Your task to perform on an android device: Clear the shopping cart on costco. Search for "usb-a to usb-b" on costco, select the first entry, and add it to the cart. Image 0: 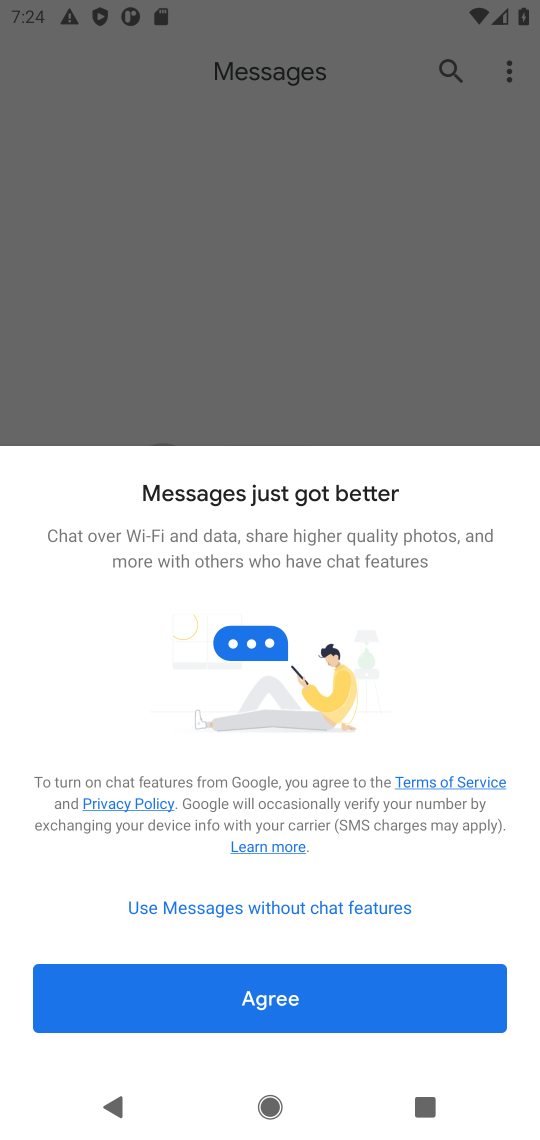
Step 0: press home button
Your task to perform on an android device: Clear the shopping cart on costco. Search for "usb-a to usb-b" on costco, select the first entry, and add it to the cart. Image 1: 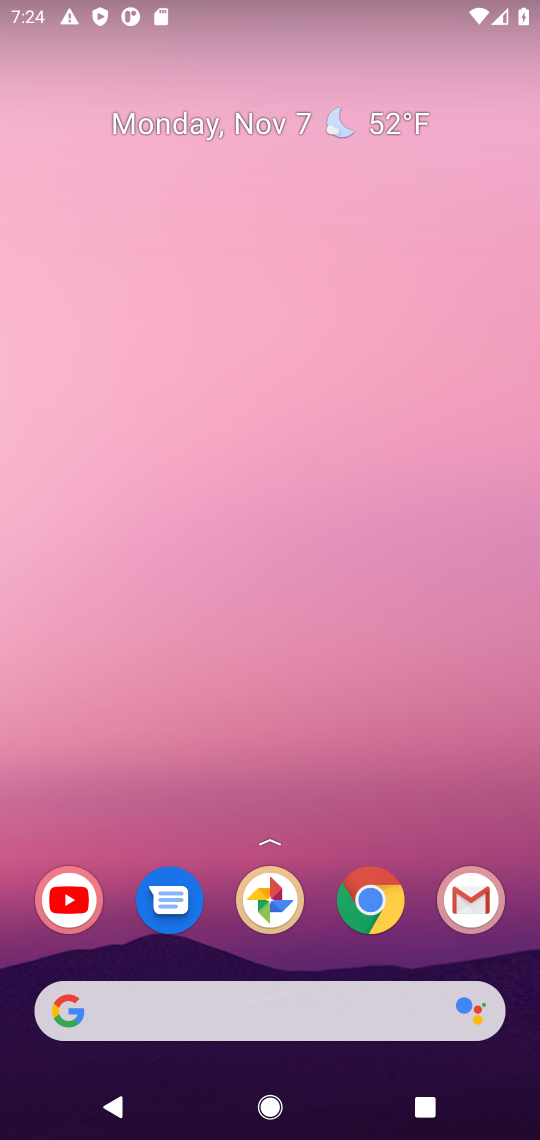
Step 1: press home button
Your task to perform on an android device: Clear the shopping cart on costco. Search for "usb-a to usb-b" on costco, select the first entry, and add it to the cart. Image 2: 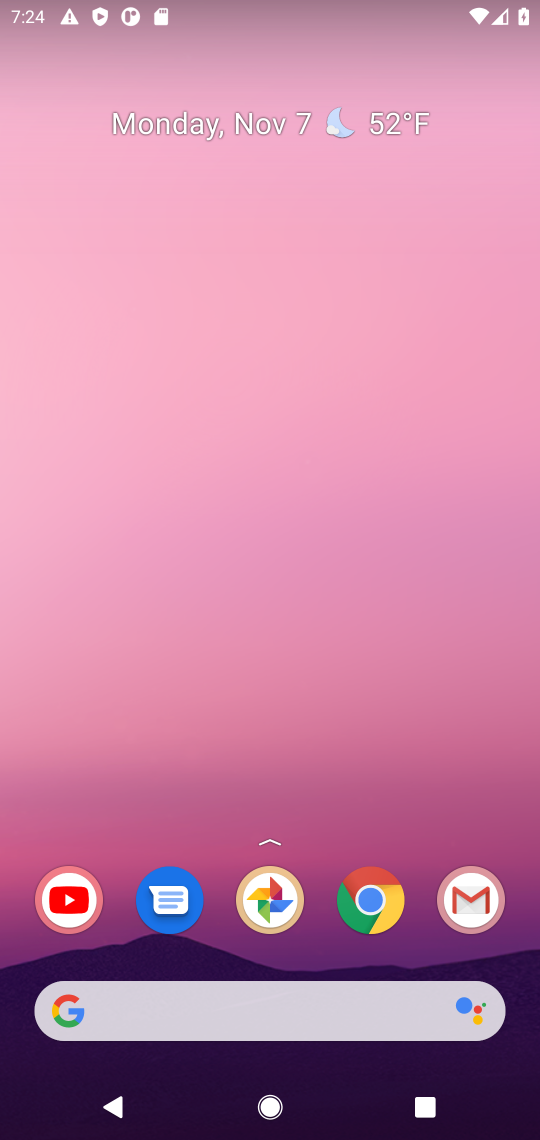
Step 2: drag from (295, 936) to (342, 211)
Your task to perform on an android device: Clear the shopping cart on costco. Search for "usb-a to usb-b" on costco, select the first entry, and add it to the cart. Image 3: 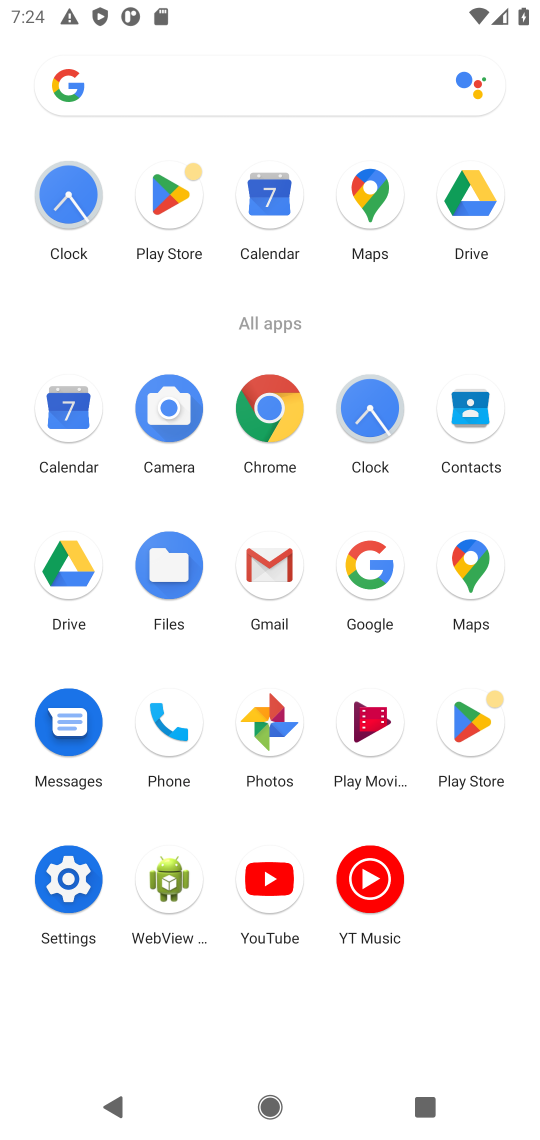
Step 3: click (264, 408)
Your task to perform on an android device: Clear the shopping cart on costco. Search for "usb-a to usb-b" on costco, select the first entry, and add it to the cart. Image 4: 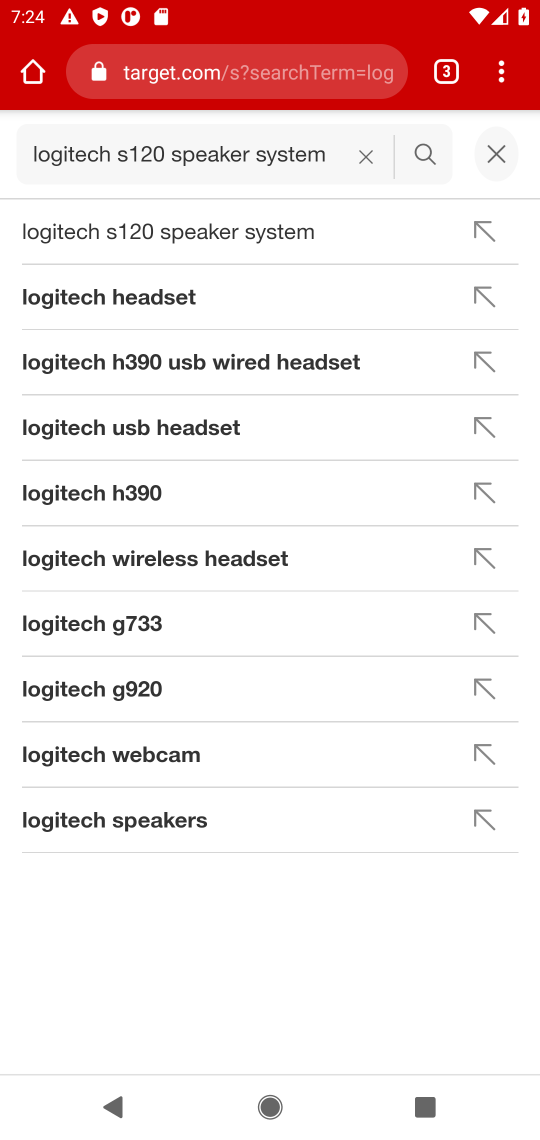
Step 4: click (446, 82)
Your task to perform on an android device: Clear the shopping cart on costco. Search for "usb-a to usb-b" on costco, select the first entry, and add it to the cart. Image 5: 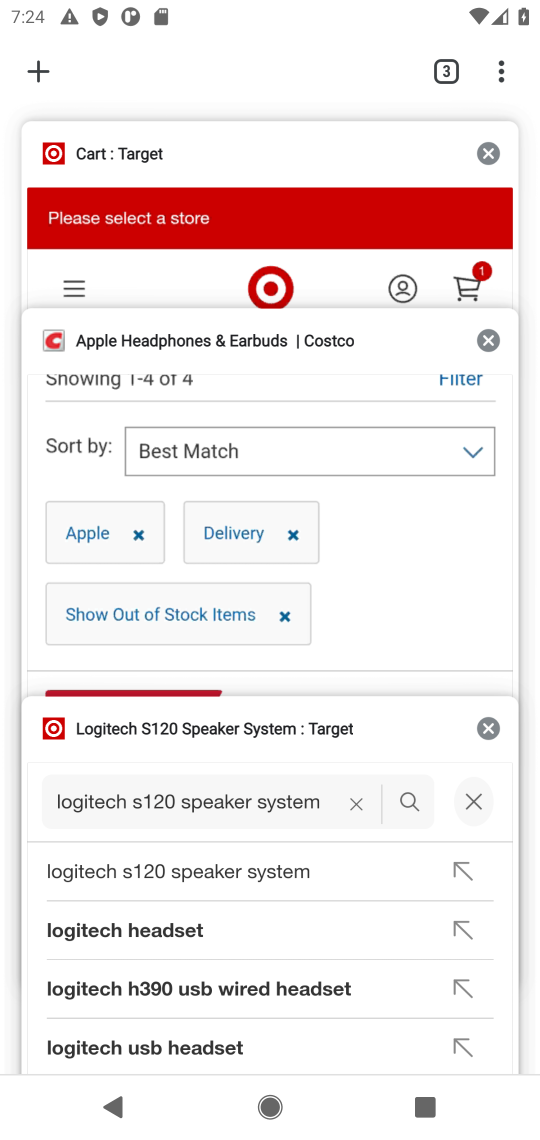
Step 5: click (46, 56)
Your task to perform on an android device: Clear the shopping cart on costco. Search for "usb-a to usb-b" on costco, select the first entry, and add it to the cart. Image 6: 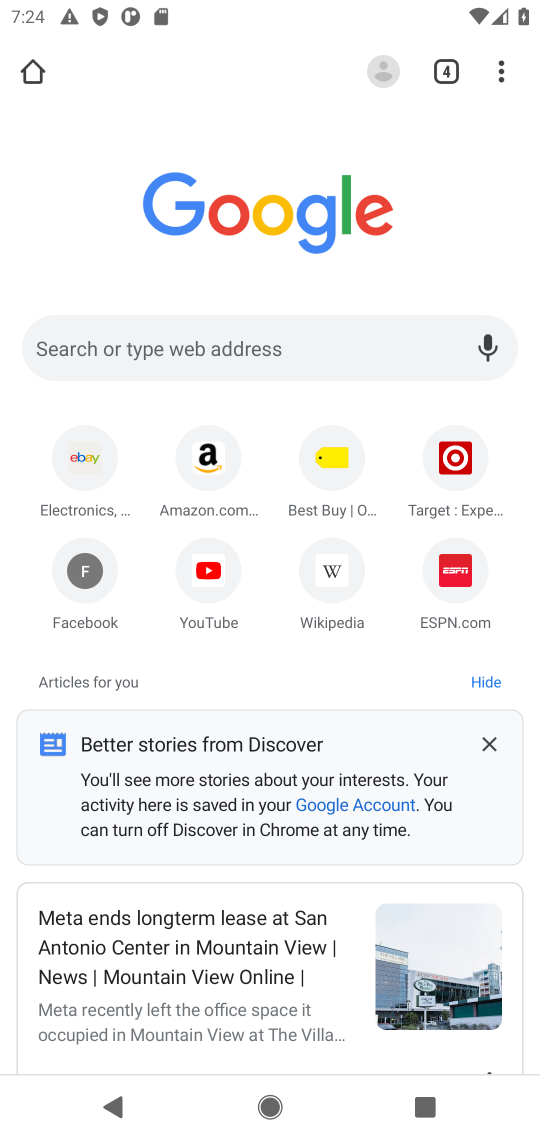
Step 6: click (188, 356)
Your task to perform on an android device: Clear the shopping cart on costco. Search for "usb-a to usb-b" on costco, select the first entry, and add it to the cart. Image 7: 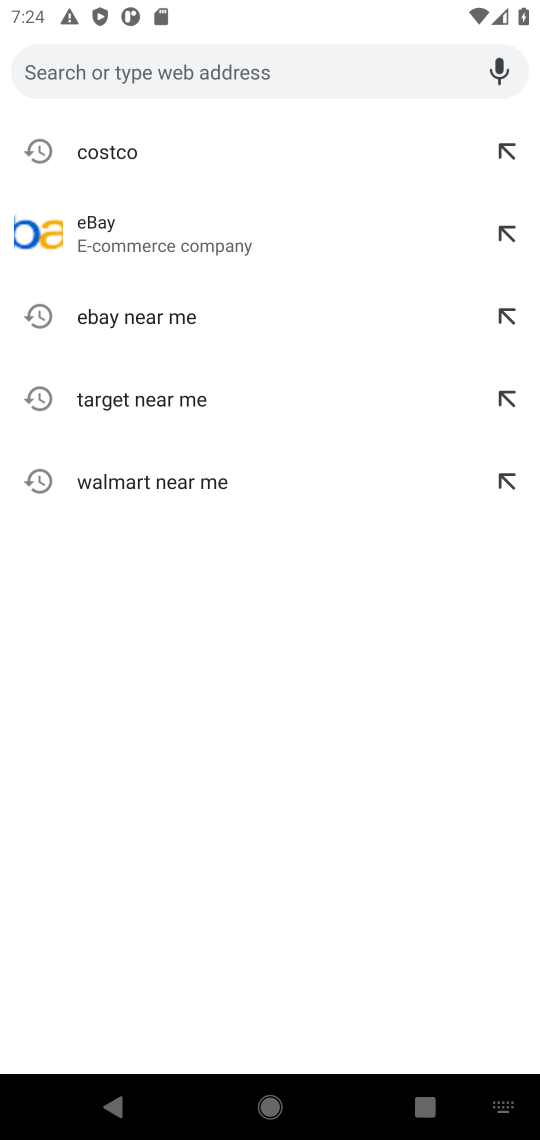
Step 7: click (129, 141)
Your task to perform on an android device: Clear the shopping cart on costco. Search for "usb-a to usb-b" on costco, select the first entry, and add it to the cart. Image 8: 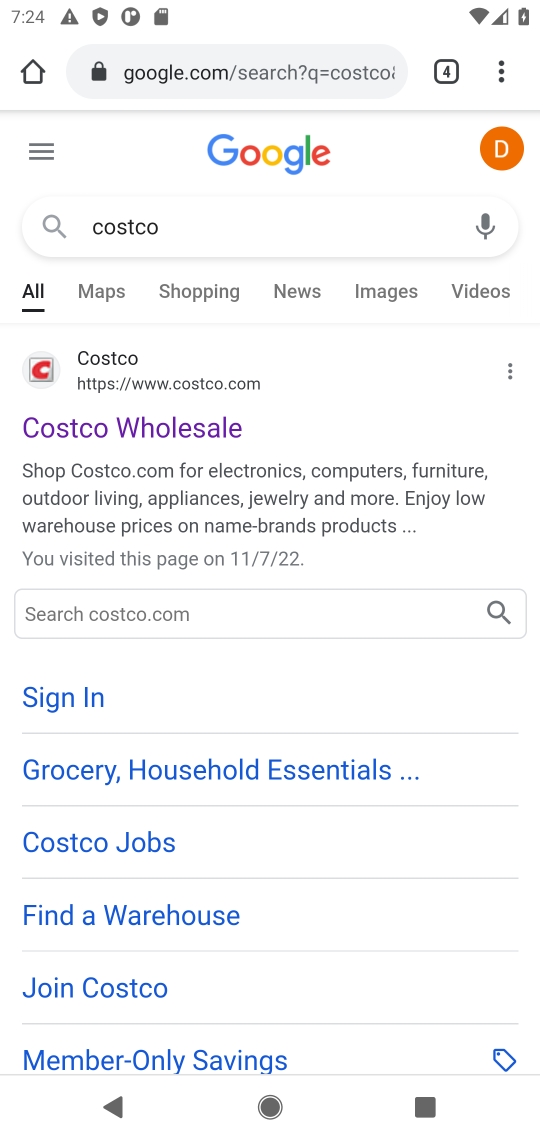
Step 8: click (188, 427)
Your task to perform on an android device: Clear the shopping cart on costco. Search for "usb-a to usb-b" on costco, select the first entry, and add it to the cart. Image 9: 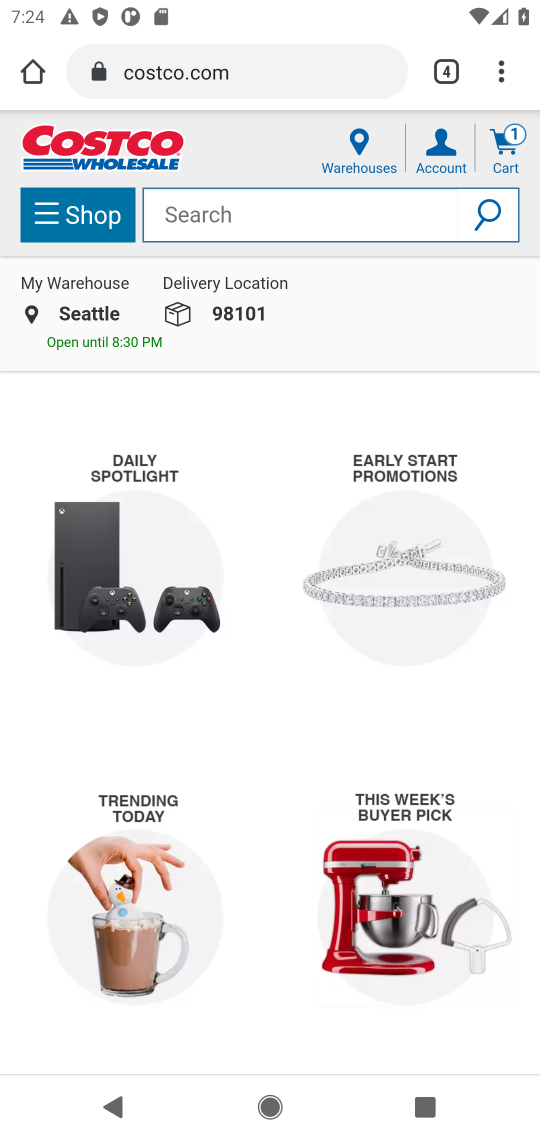
Step 9: click (222, 203)
Your task to perform on an android device: Clear the shopping cart on costco. Search for "usb-a to usb-b" on costco, select the first entry, and add it to the cart. Image 10: 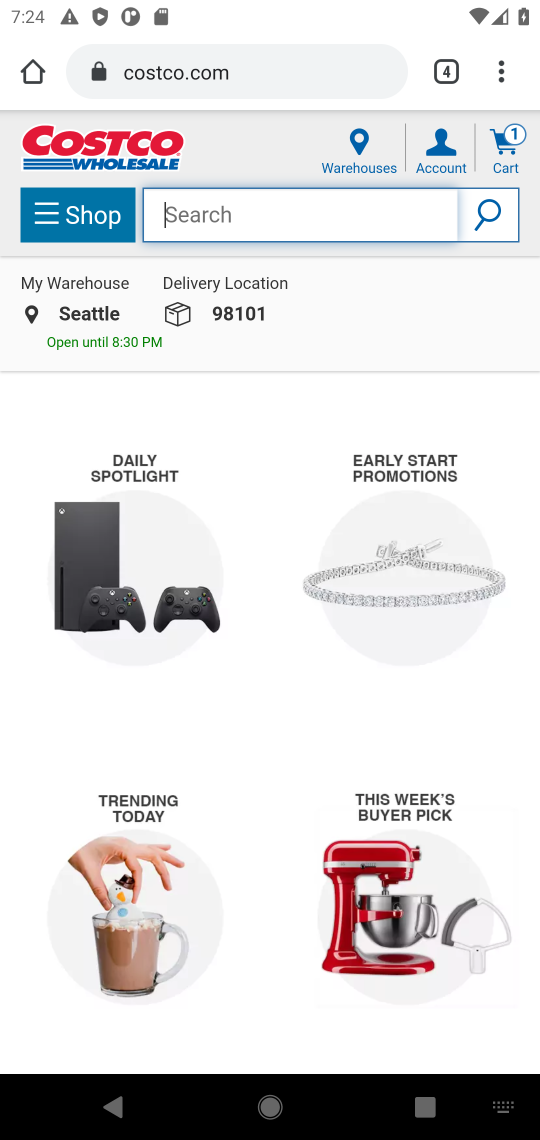
Step 10: type "usb-a to usb-b"
Your task to perform on an android device: Clear the shopping cart on costco. Search for "usb-a to usb-b" on costco, select the first entry, and add it to the cart. Image 11: 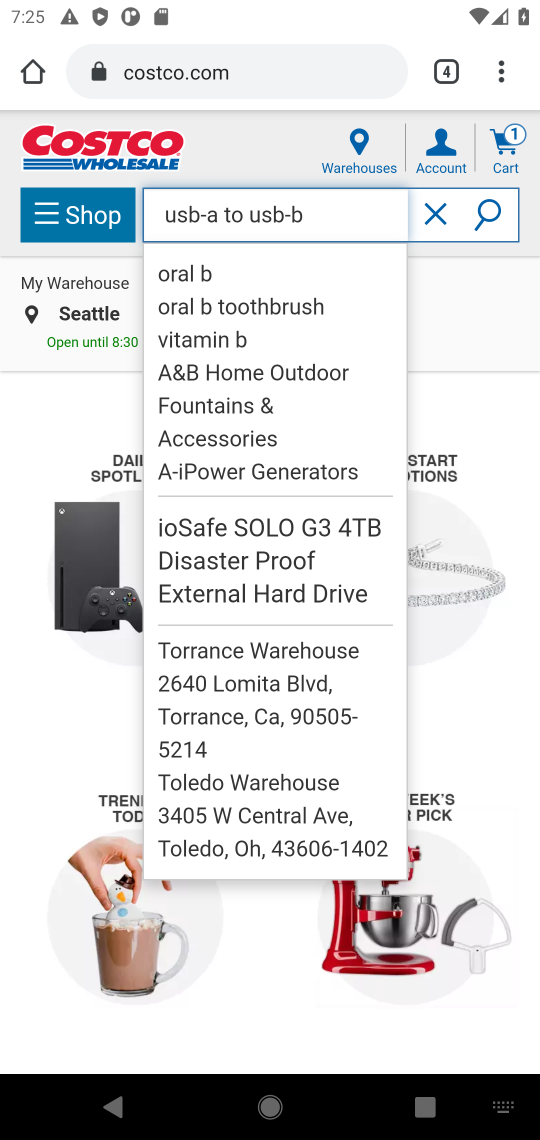
Step 11: task complete